Your task to perform on an android device: snooze an email in the gmail app Image 0: 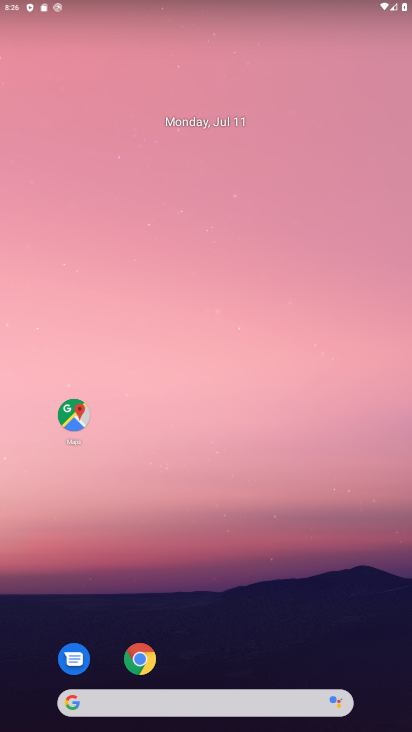
Step 0: click (60, 719)
Your task to perform on an android device: snooze an email in the gmail app Image 1: 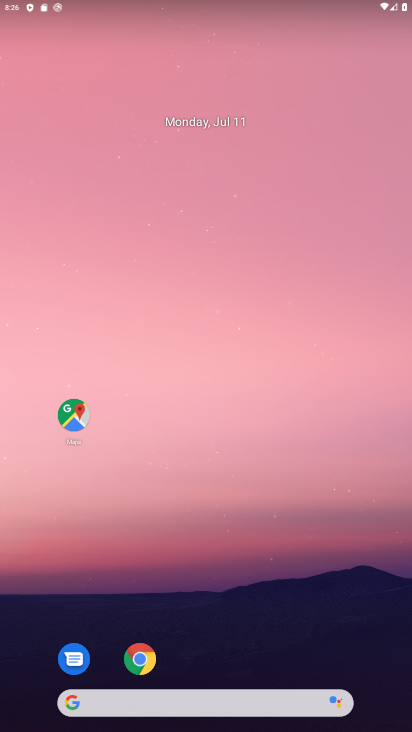
Step 1: drag from (37, 699) to (358, 56)
Your task to perform on an android device: snooze an email in the gmail app Image 2: 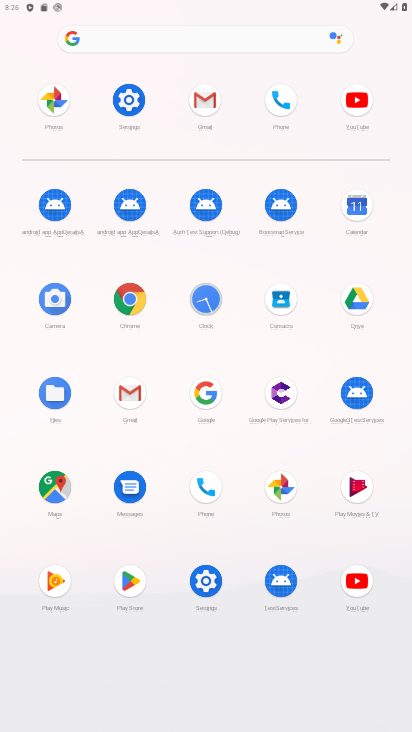
Step 2: click (142, 401)
Your task to perform on an android device: snooze an email in the gmail app Image 3: 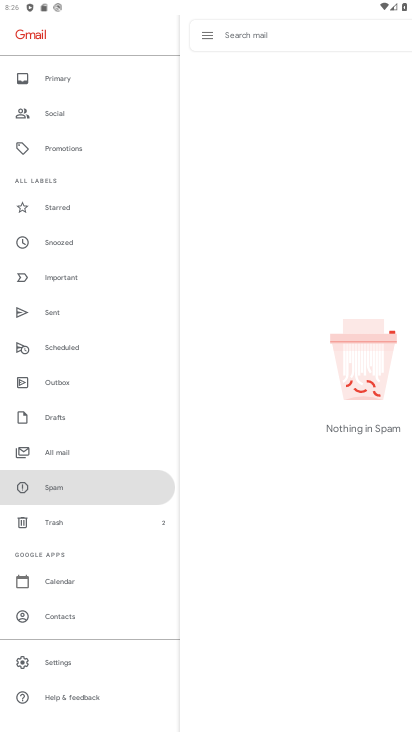
Step 3: click (64, 248)
Your task to perform on an android device: snooze an email in the gmail app Image 4: 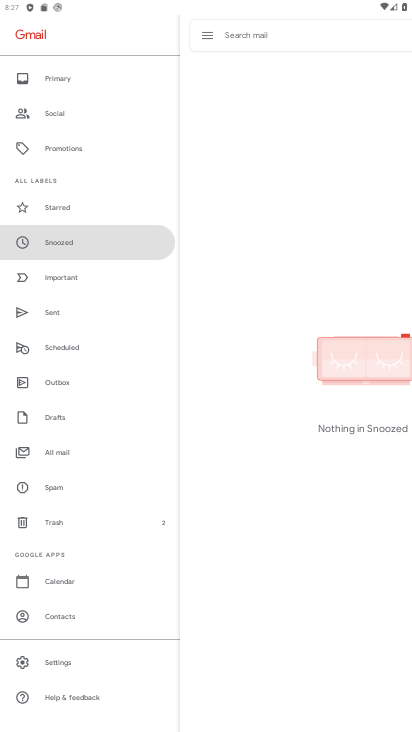
Step 4: task complete